Your task to perform on an android device: change keyboard looks Image 0: 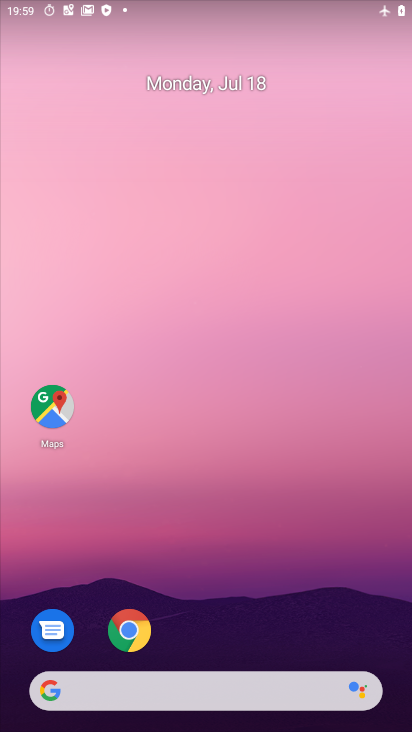
Step 0: drag from (297, 544) to (229, 112)
Your task to perform on an android device: change keyboard looks Image 1: 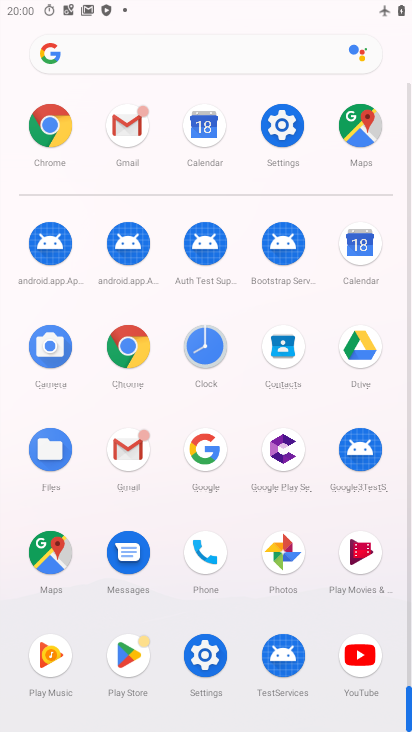
Step 1: click (286, 132)
Your task to perform on an android device: change keyboard looks Image 2: 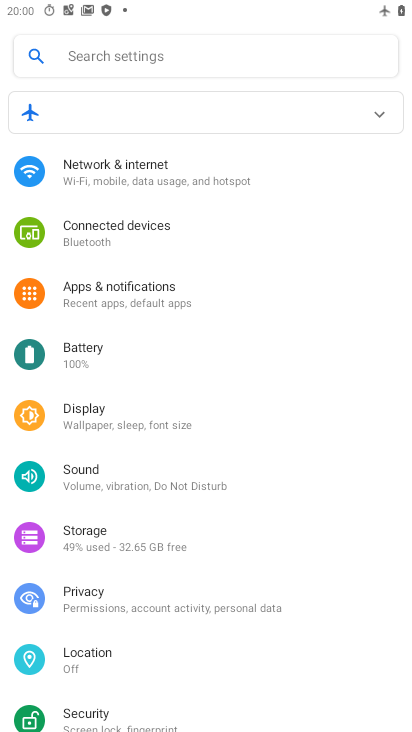
Step 2: drag from (132, 642) to (82, 167)
Your task to perform on an android device: change keyboard looks Image 3: 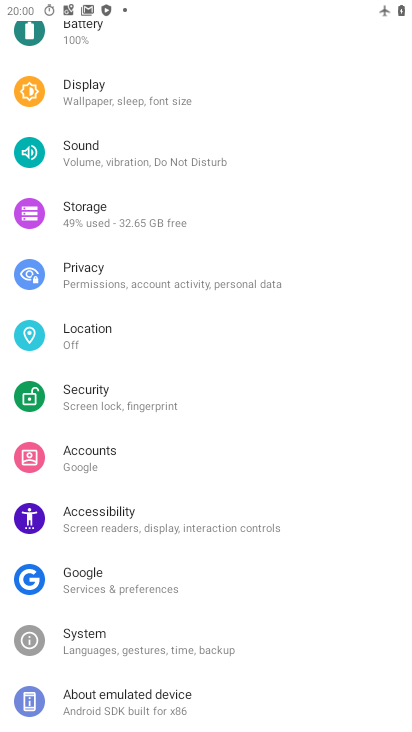
Step 3: drag from (152, 583) to (132, 266)
Your task to perform on an android device: change keyboard looks Image 4: 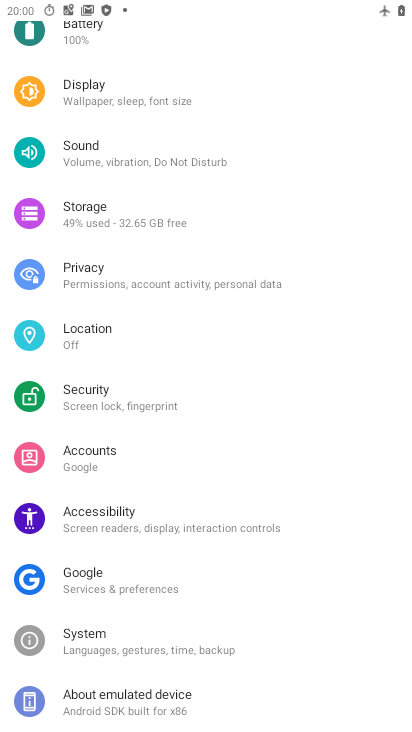
Step 4: click (129, 644)
Your task to perform on an android device: change keyboard looks Image 5: 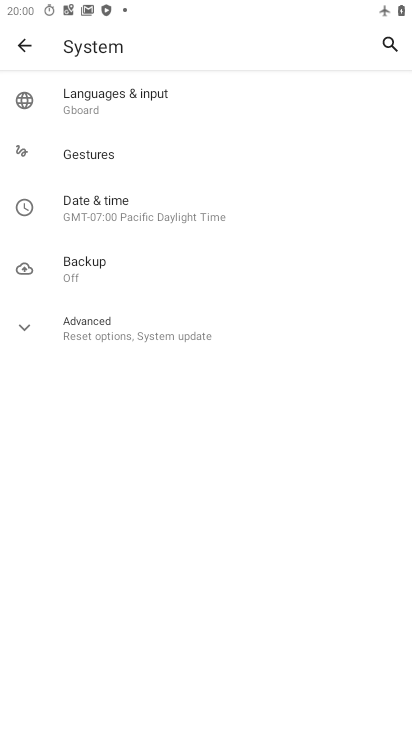
Step 5: click (101, 94)
Your task to perform on an android device: change keyboard looks Image 6: 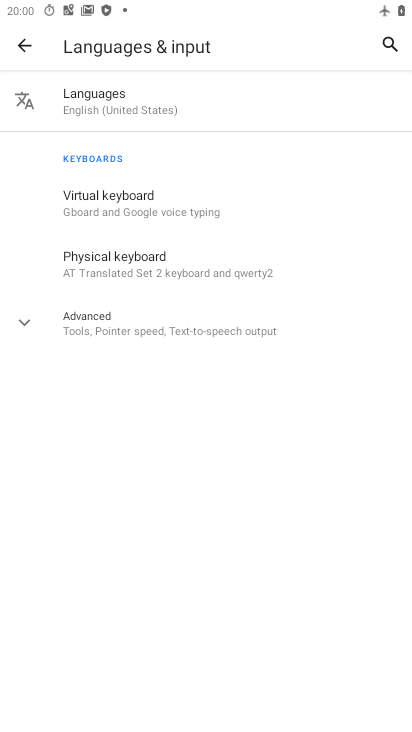
Step 6: click (133, 206)
Your task to perform on an android device: change keyboard looks Image 7: 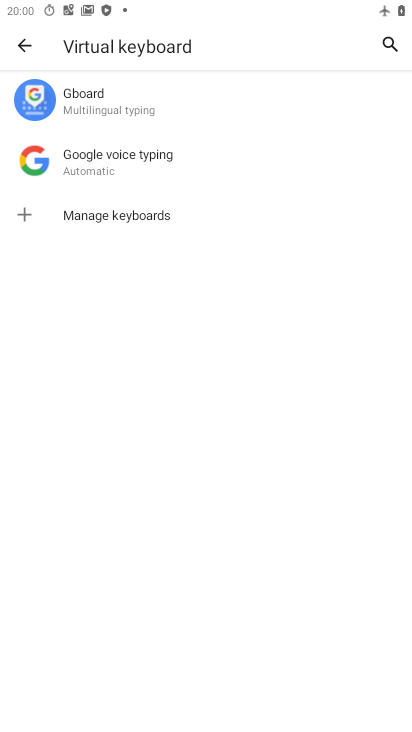
Step 7: click (80, 114)
Your task to perform on an android device: change keyboard looks Image 8: 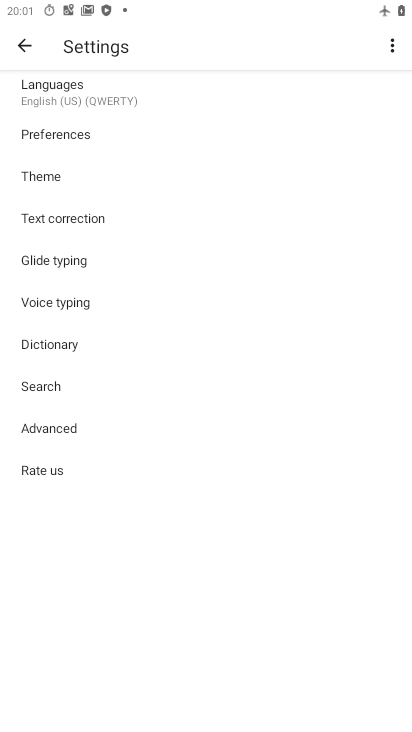
Step 8: click (58, 175)
Your task to perform on an android device: change keyboard looks Image 9: 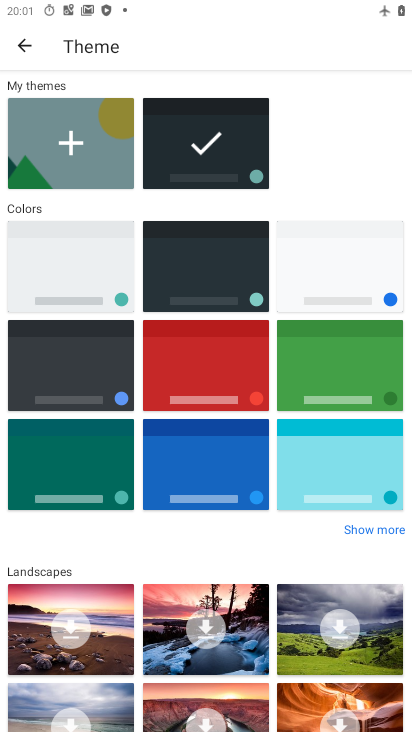
Step 9: click (166, 275)
Your task to perform on an android device: change keyboard looks Image 10: 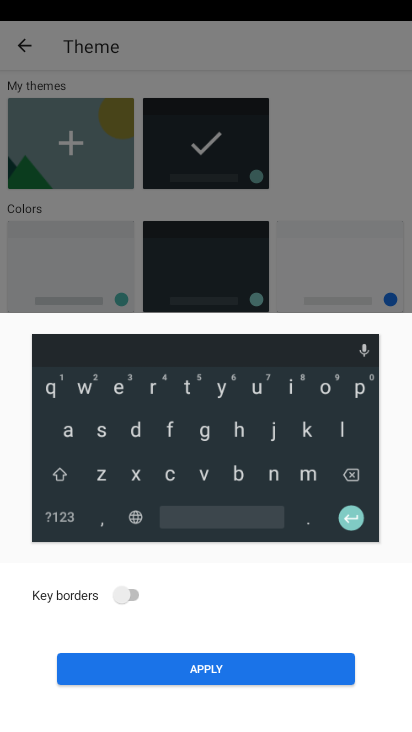
Step 10: click (238, 673)
Your task to perform on an android device: change keyboard looks Image 11: 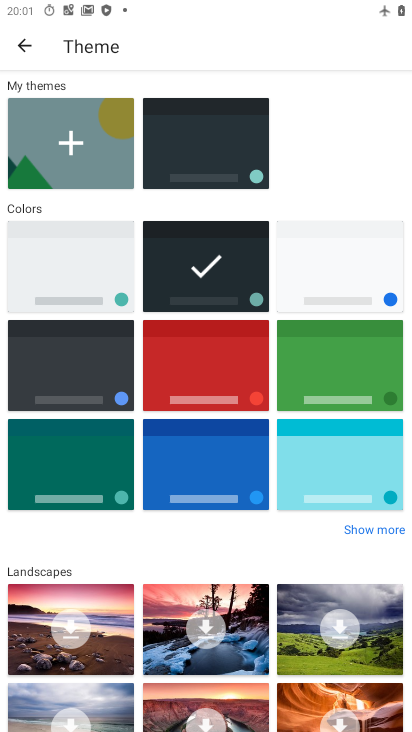
Step 11: task complete